Your task to perform on an android device: toggle data saver in the chrome app Image 0: 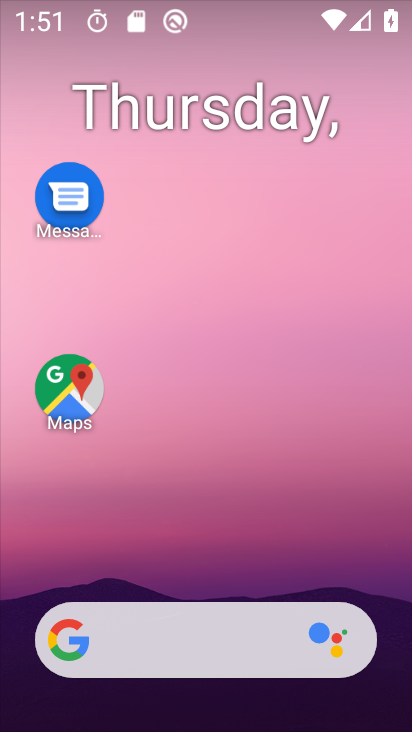
Step 0: drag from (126, 440) to (137, 107)
Your task to perform on an android device: toggle data saver in the chrome app Image 1: 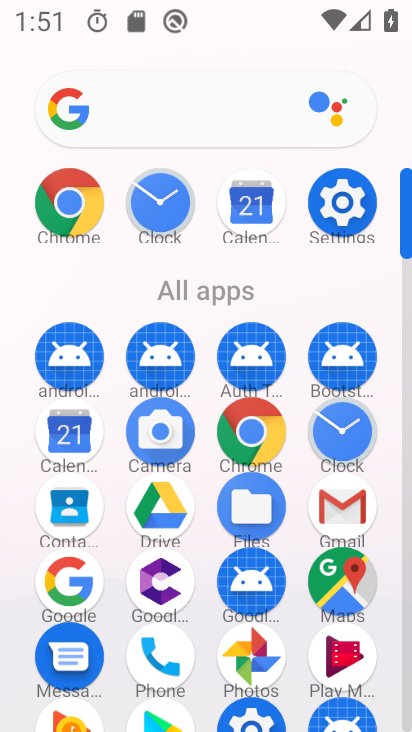
Step 1: click (61, 200)
Your task to perform on an android device: toggle data saver in the chrome app Image 2: 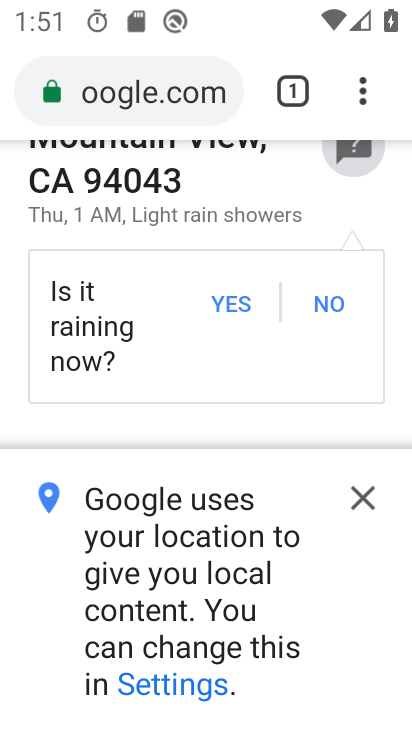
Step 2: click (361, 103)
Your task to perform on an android device: toggle data saver in the chrome app Image 3: 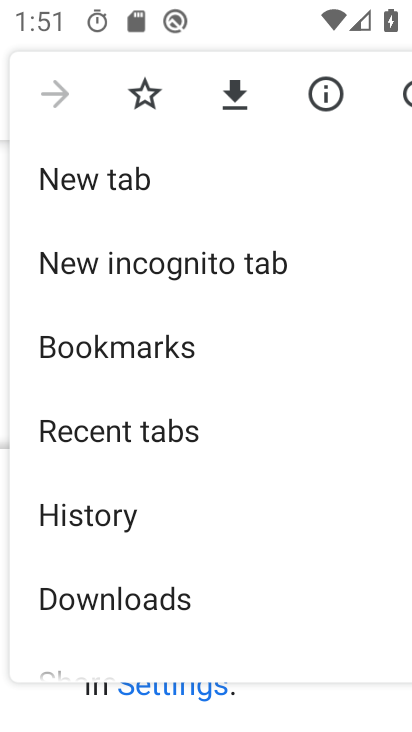
Step 3: drag from (229, 536) to (213, 254)
Your task to perform on an android device: toggle data saver in the chrome app Image 4: 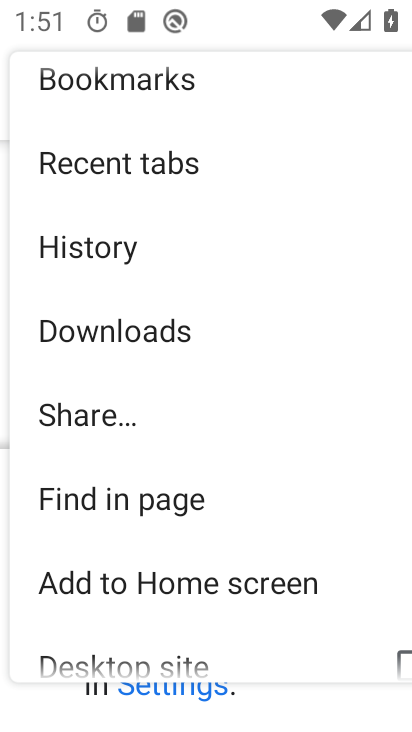
Step 4: drag from (138, 589) to (102, 230)
Your task to perform on an android device: toggle data saver in the chrome app Image 5: 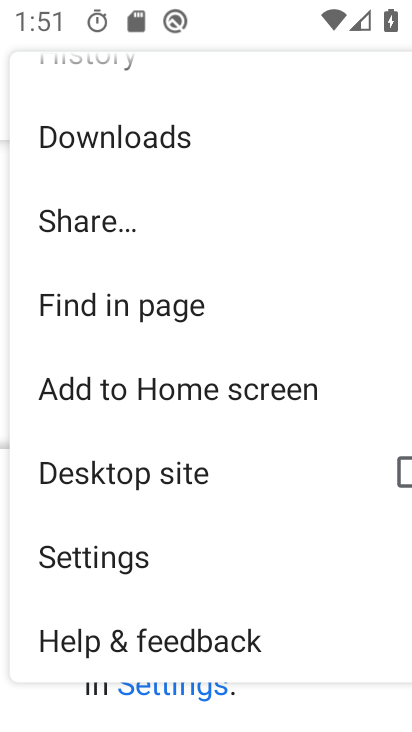
Step 5: click (129, 564)
Your task to perform on an android device: toggle data saver in the chrome app Image 6: 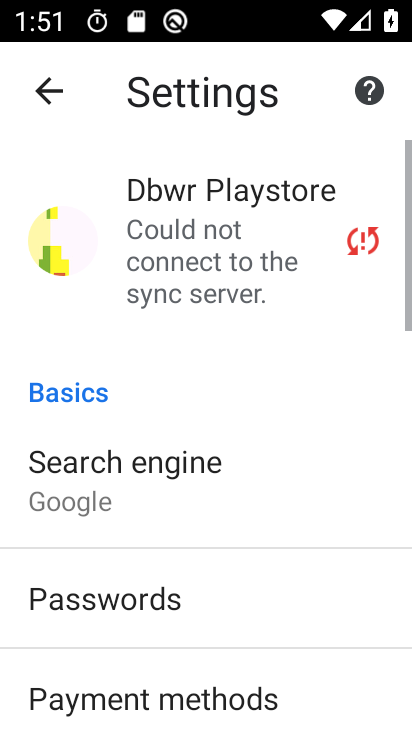
Step 6: drag from (134, 612) to (153, 251)
Your task to perform on an android device: toggle data saver in the chrome app Image 7: 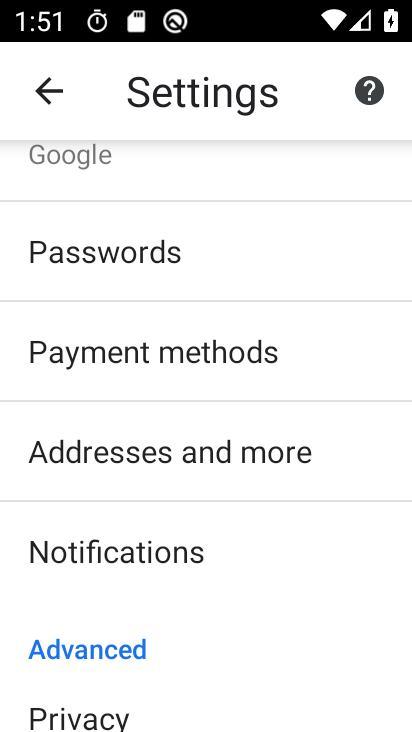
Step 7: drag from (107, 643) to (106, 259)
Your task to perform on an android device: toggle data saver in the chrome app Image 8: 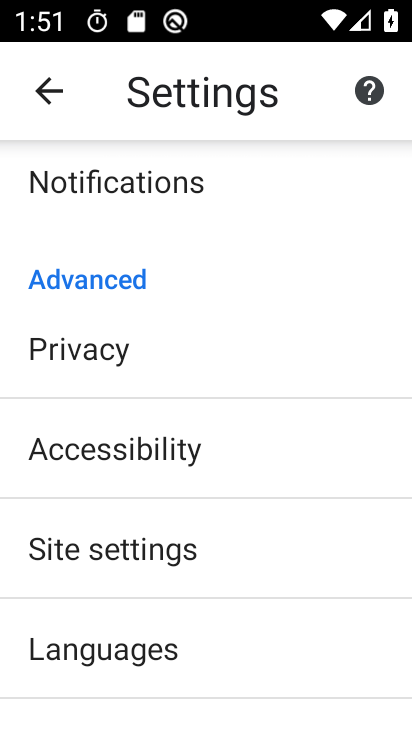
Step 8: drag from (137, 666) to (133, 318)
Your task to perform on an android device: toggle data saver in the chrome app Image 9: 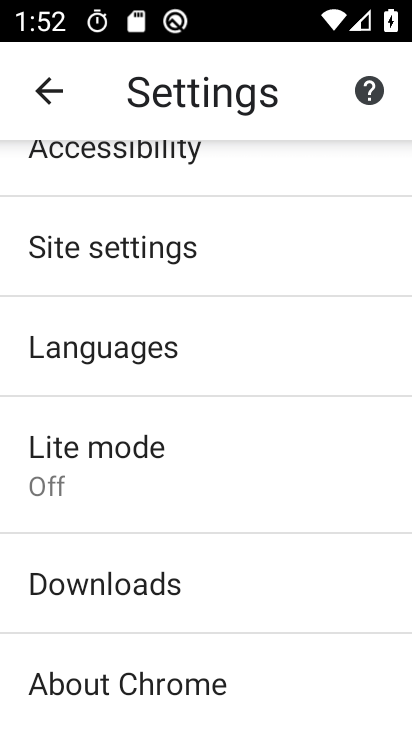
Step 9: click (81, 482)
Your task to perform on an android device: toggle data saver in the chrome app Image 10: 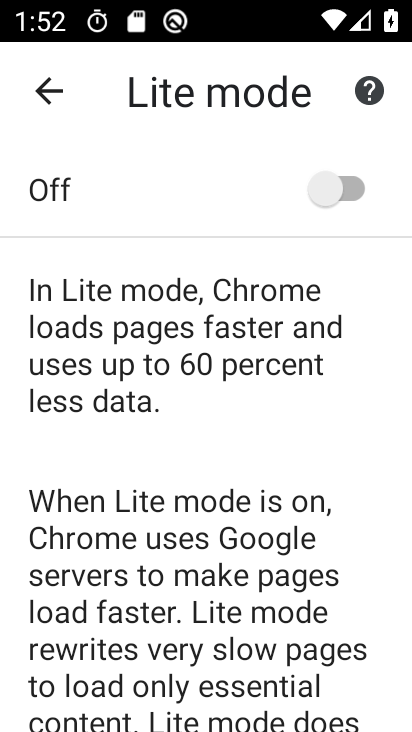
Step 10: drag from (215, 624) to (212, 511)
Your task to perform on an android device: toggle data saver in the chrome app Image 11: 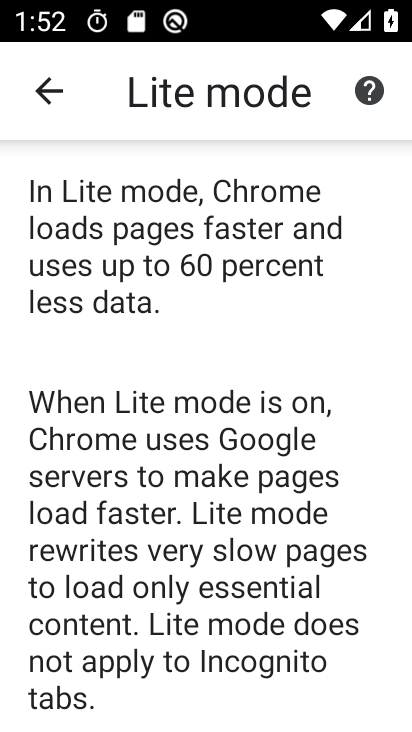
Step 11: drag from (218, 327) to (236, 621)
Your task to perform on an android device: toggle data saver in the chrome app Image 12: 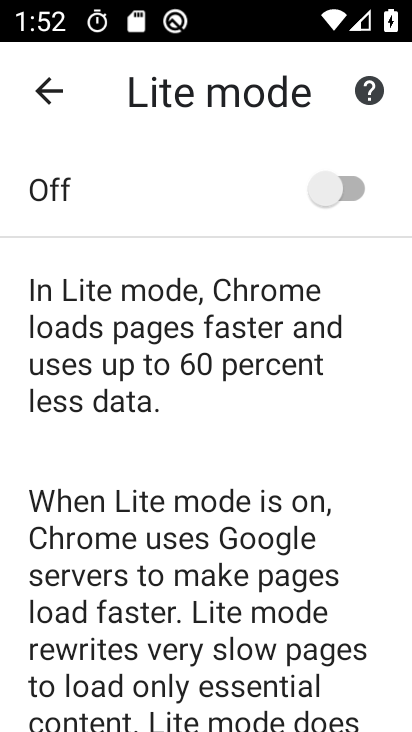
Step 12: click (343, 193)
Your task to perform on an android device: toggle data saver in the chrome app Image 13: 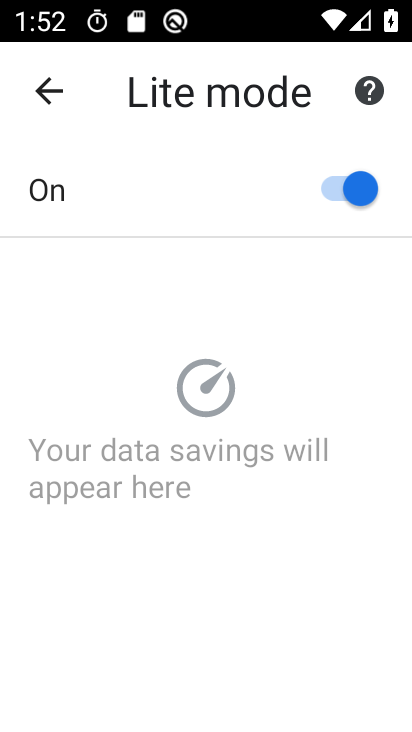
Step 13: task complete